Your task to perform on an android device: Open location settings Image 0: 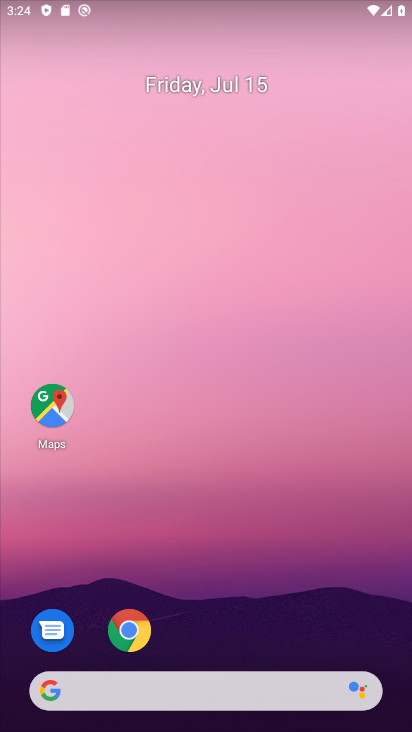
Step 0: drag from (199, 624) to (185, 139)
Your task to perform on an android device: Open location settings Image 1: 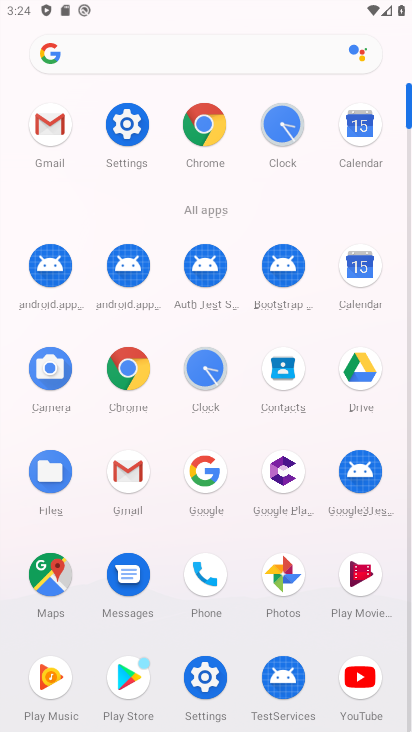
Step 1: click (210, 683)
Your task to perform on an android device: Open location settings Image 2: 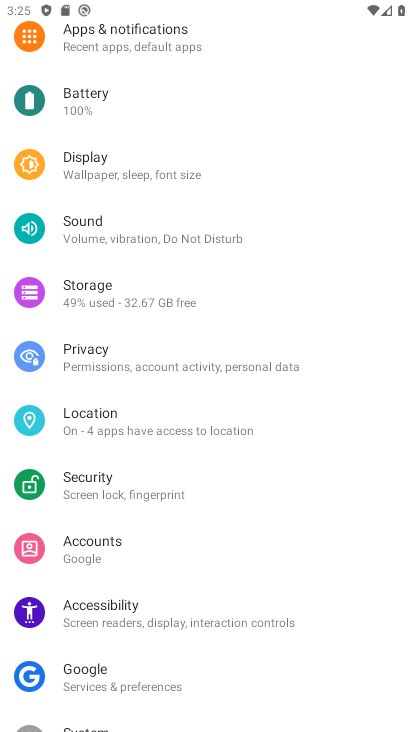
Step 2: click (97, 408)
Your task to perform on an android device: Open location settings Image 3: 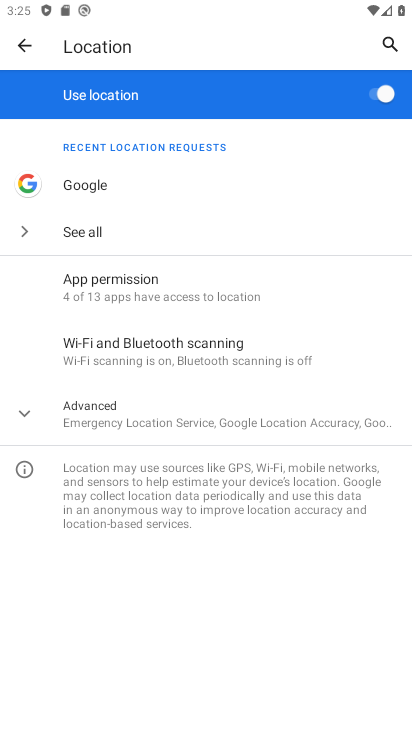
Step 3: click (84, 407)
Your task to perform on an android device: Open location settings Image 4: 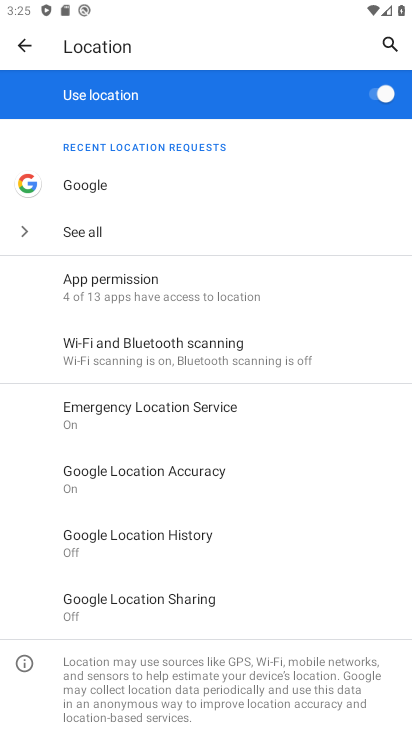
Step 4: task complete